Your task to perform on an android device: clear history in the chrome app Image 0: 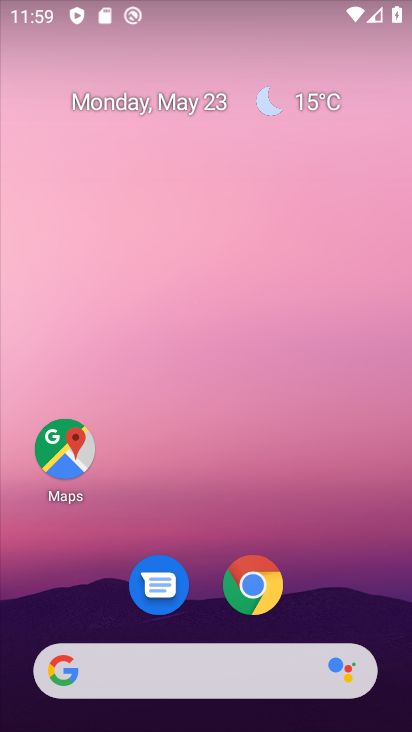
Step 0: click (249, 592)
Your task to perform on an android device: clear history in the chrome app Image 1: 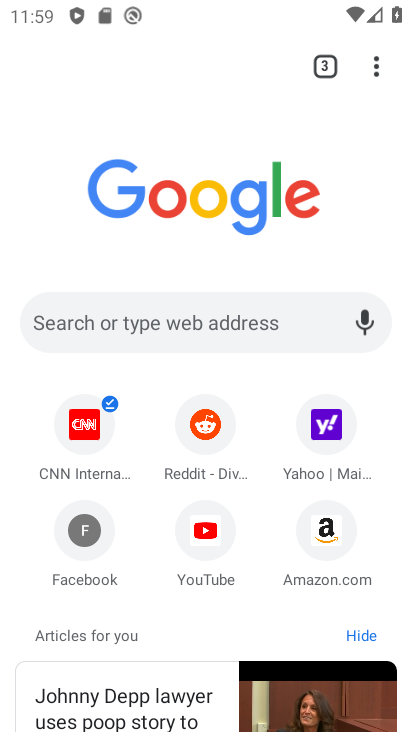
Step 1: click (372, 66)
Your task to perform on an android device: clear history in the chrome app Image 2: 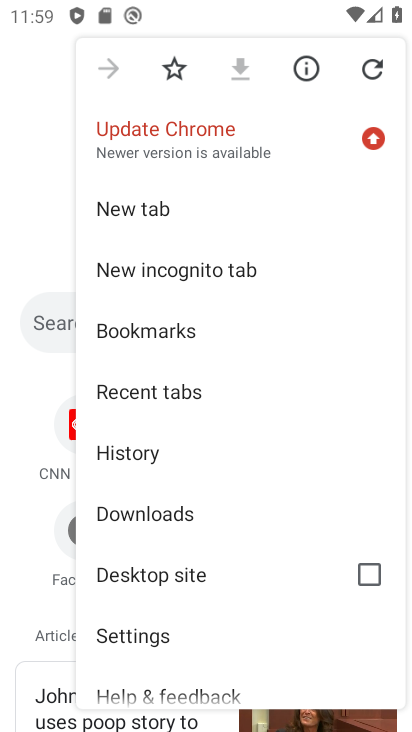
Step 2: click (144, 449)
Your task to perform on an android device: clear history in the chrome app Image 3: 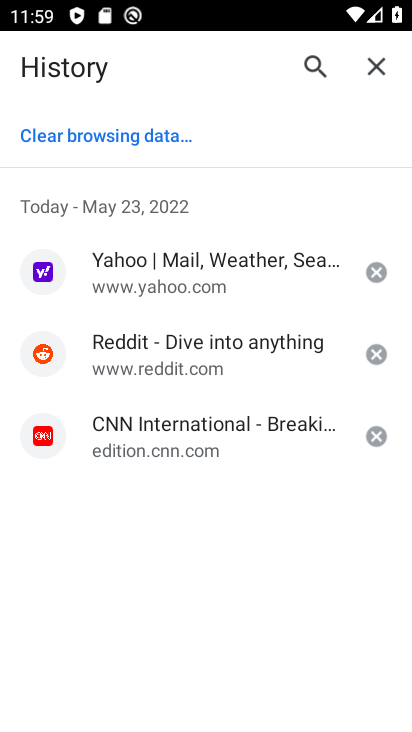
Step 3: click (159, 134)
Your task to perform on an android device: clear history in the chrome app Image 4: 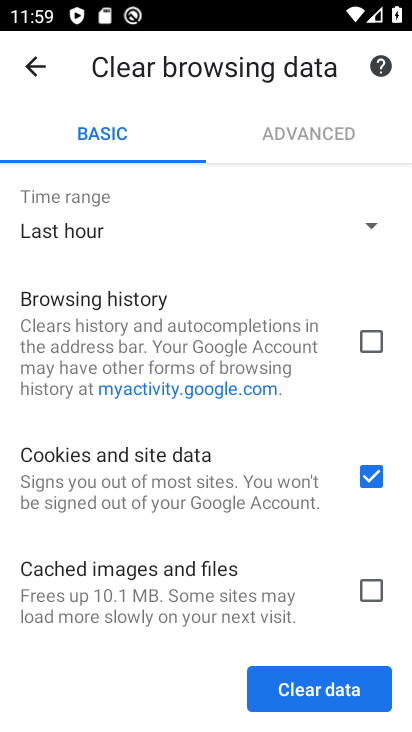
Step 4: click (369, 346)
Your task to perform on an android device: clear history in the chrome app Image 5: 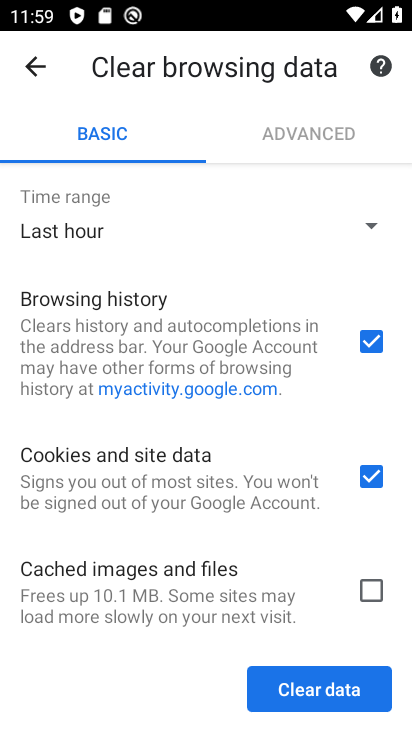
Step 5: click (375, 475)
Your task to perform on an android device: clear history in the chrome app Image 6: 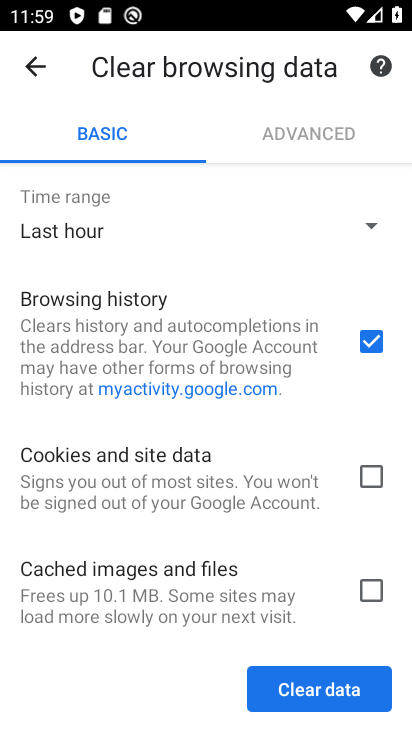
Step 6: click (339, 678)
Your task to perform on an android device: clear history in the chrome app Image 7: 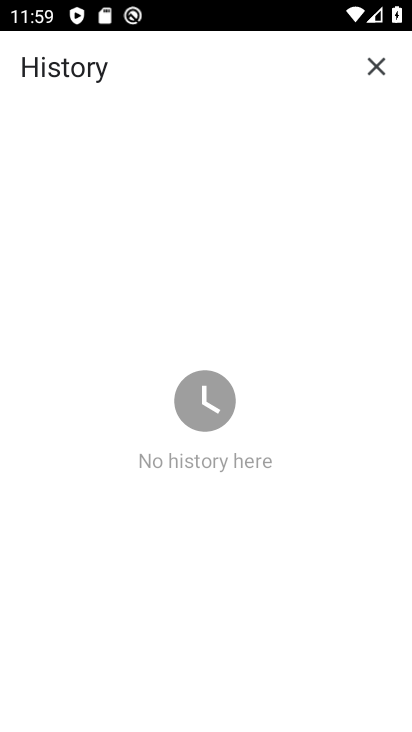
Step 7: task complete